Your task to perform on an android device: What's the weather today? Image 0: 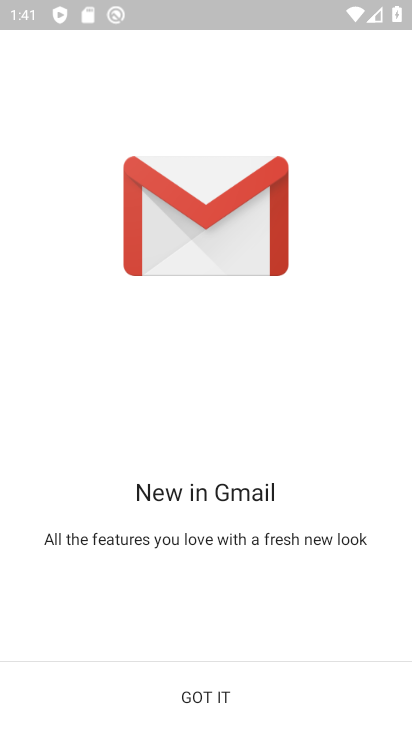
Step 0: press home button
Your task to perform on an android device: What's the weather today? Image 1: 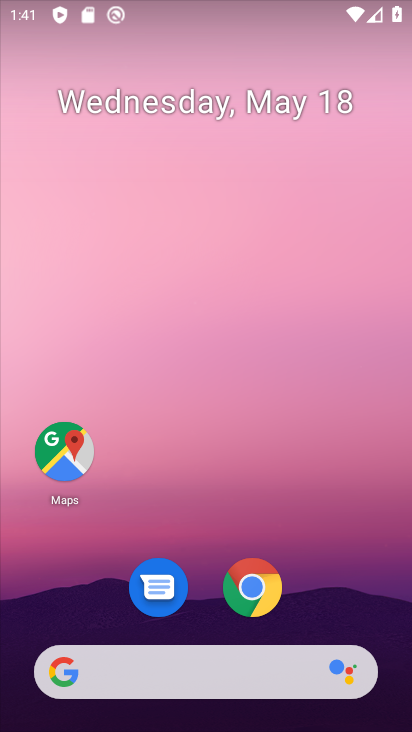
Step 1: click (138, 670)
Your task to perform on an android device: What's the weather today? Image 2: 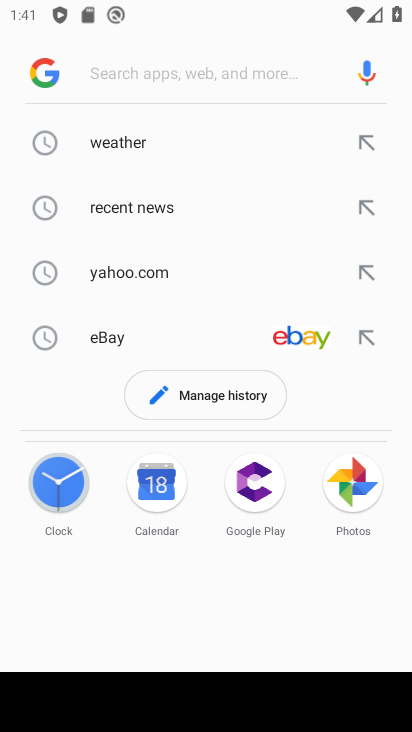
Step 2: click (108, 150)
Your task to perform on an android device: What's the weather today? Image 3: 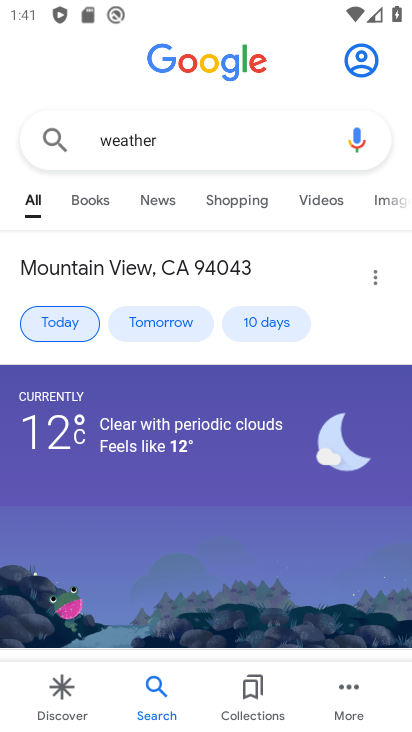
Step 3: task complete